Your task to perform on an android device: Open wifi settings Image 0: 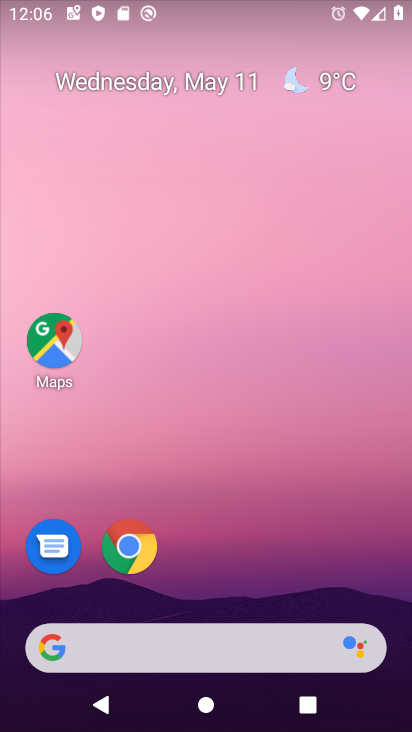
Step 0: drag from (195, 575) to (252, 380)
Your task to perform on an android device: Open wifi settings Image 1: 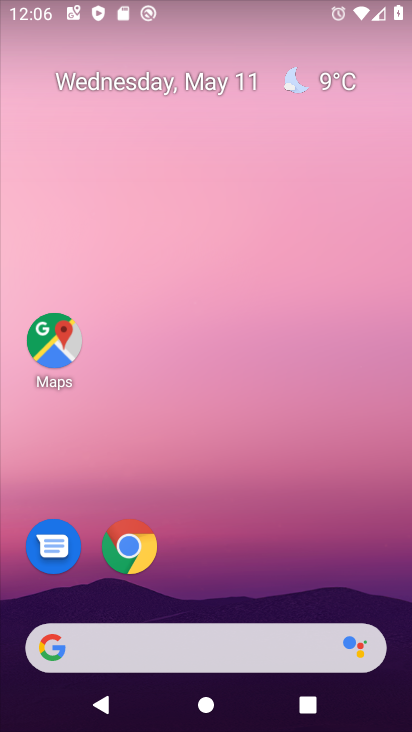
Step 1: drag from (186, 591) to (249, 288)
Your task to perform on an android device: Open wifi settings Image 2: 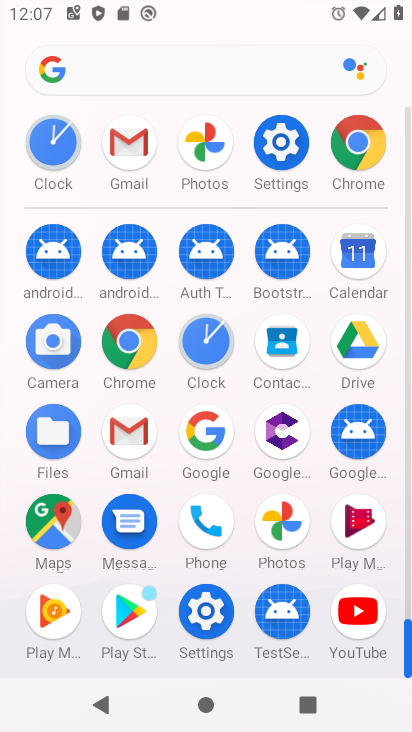
Step 2: click (274, 149)
Your task to perform on an android device: Open wifi settings Image 3: 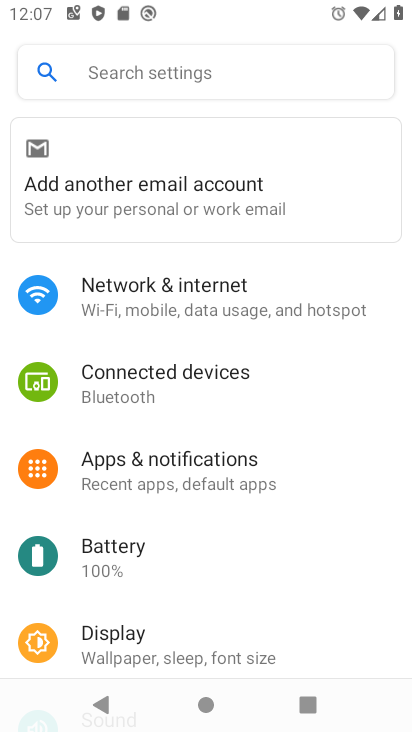
Step 3: click (149, 281)
Your task to perform on an android device: Open wifi settings Image 4: 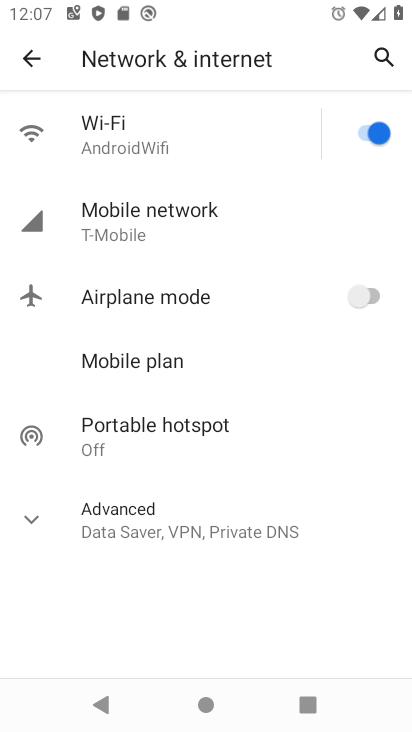
Step 4: click (139, 134)
Your task to perform on an android device: Open wifi settings Image 5: 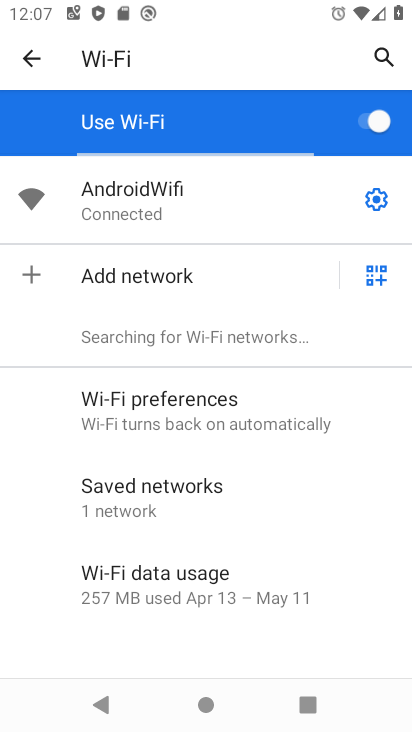
Step 5: task complete